Your task to perform on an android device: Open sound settings Image 0: 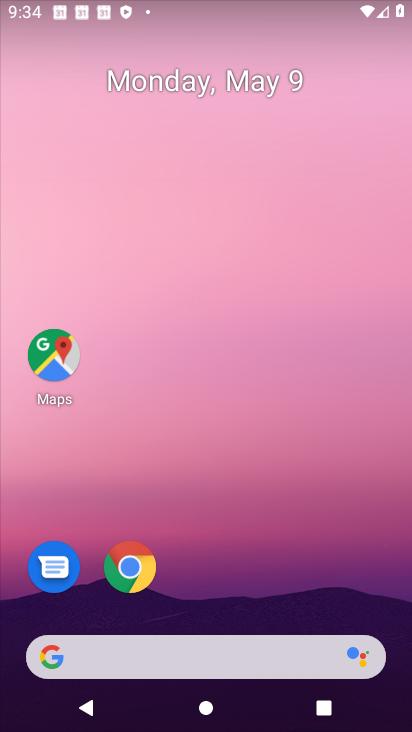
Step 0: drag from (203, 663) to (140, 241)
Your task to perform on an android device: Open sound settings Image 1: 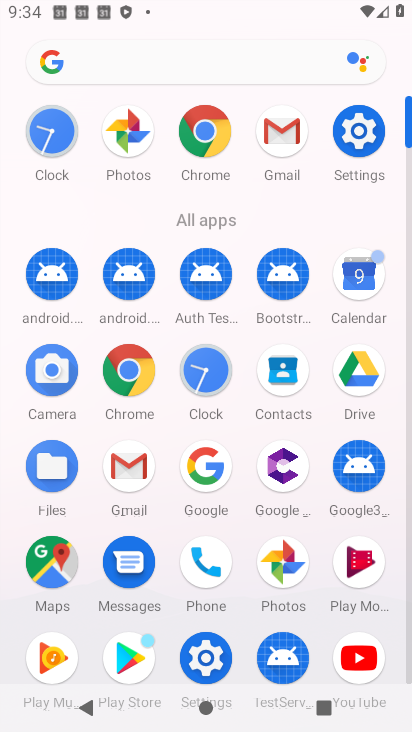
Step 1: click (211, 663)
Your task to perform on an android device: Open sound settings Image 2: 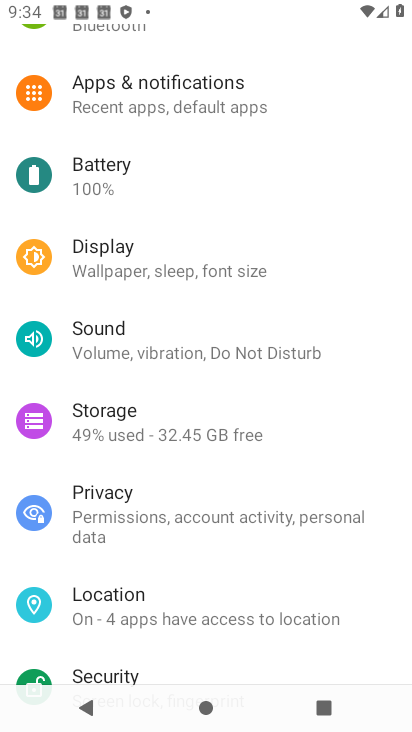
Step 2: click (118, 344)
Your task to perform on an android device: Open sound settings Image 3: 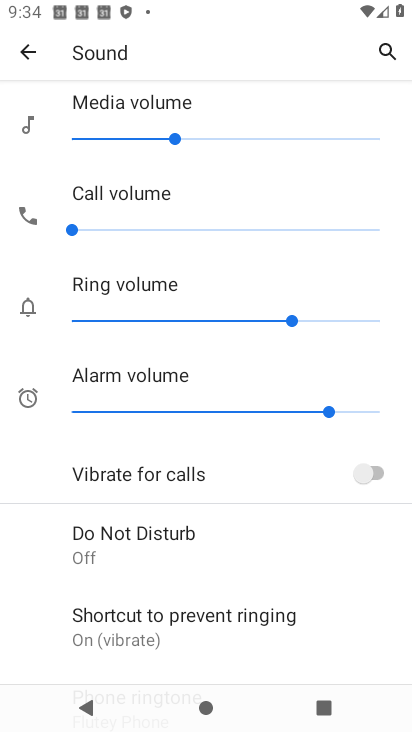
Step 3: task complete